Your task to perform on an android device: turn vacation reply on in the gmail app Image 0: 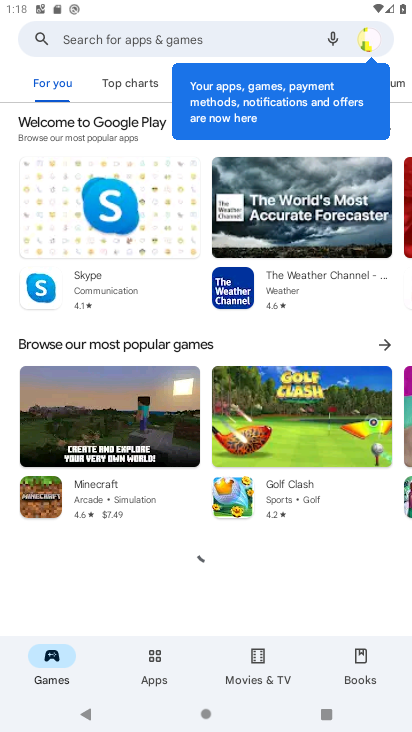
Step 0: press home button
Your task to perform on an android device: turn vacation reply on in the gmail app Image 1: 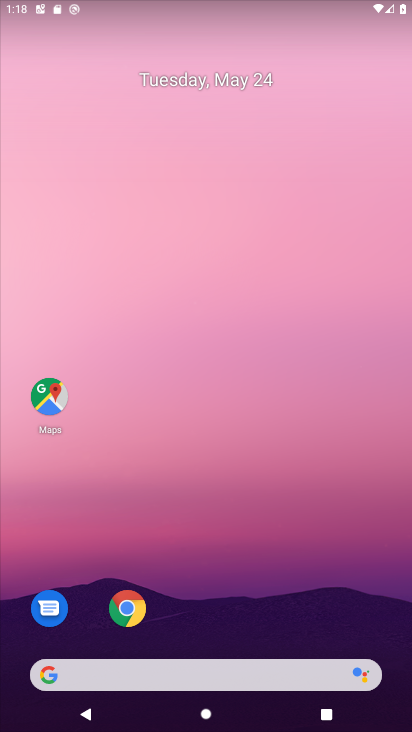
Step 1: drag from (237, 617) to (227, 153)
Your task to perform on an android device: turn vacation reply on in the gmail app Image 2: 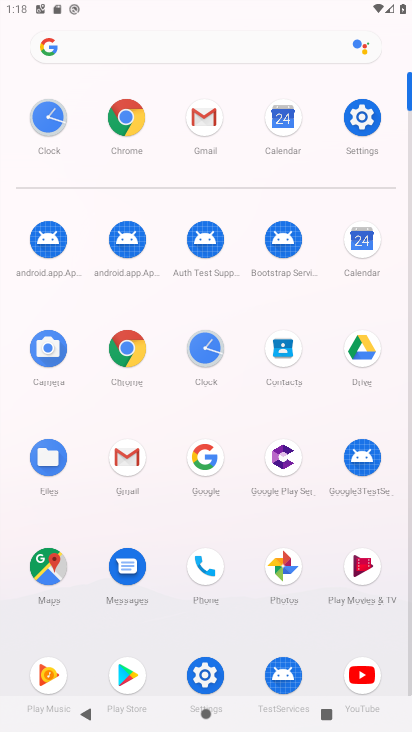
Step 2: click (209, 144)
Your task to perform on an android device: turn vacation reply on in the gmail app Image 3: 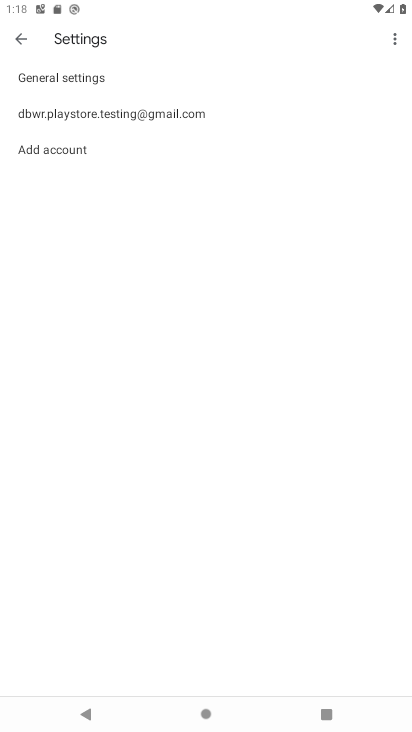
Step 3: click (36, 105)
Your task to perform on an android device: turn vacation reply on in the gmail app Image 4: 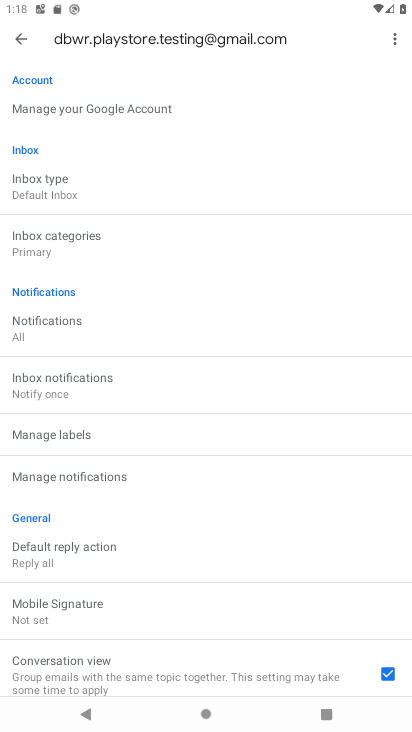
Step 4: drag from (161, 584) to (167, 233)
Your task to perform on an android device: turn vacation reply on in the gmail app Image 5: 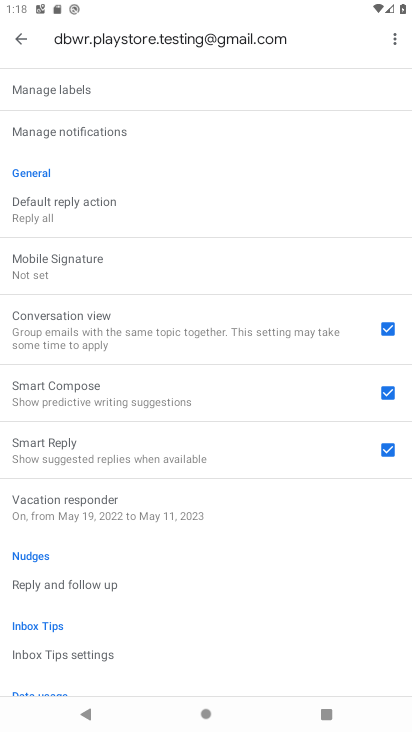
Step 5: click (223, 520)
Your task to perform on an android device: turn vacation reply on in the gmail app Image 6: 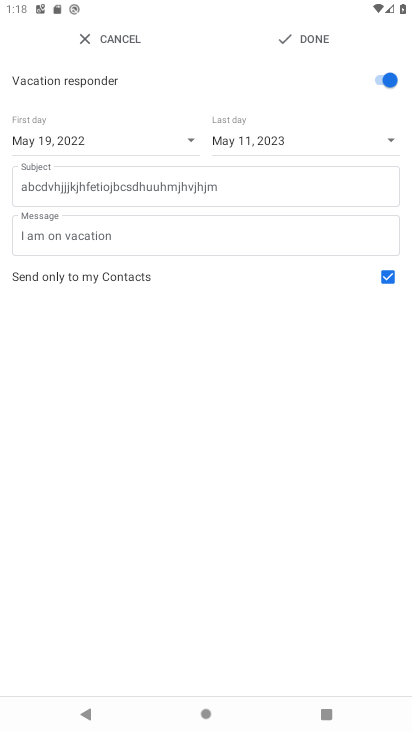
Step 6: click (296, 20)
Your task to perform on an android device: turn vacation reply on in the gmail app Image 7: 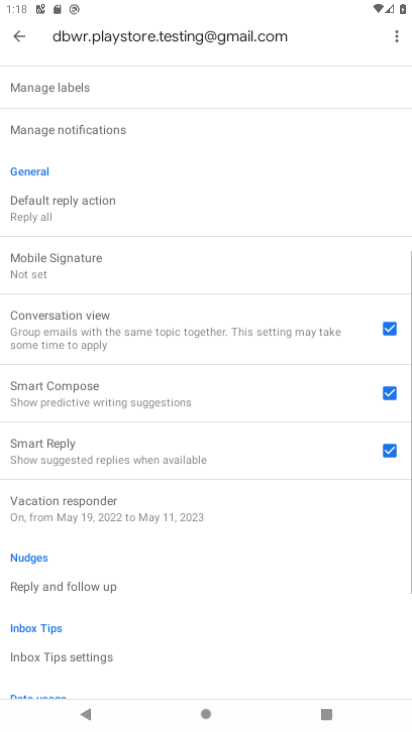
Step 7: click (296, 20)
Your task to perform on an android device: turn vacation reply on in the gmail app Image 8: 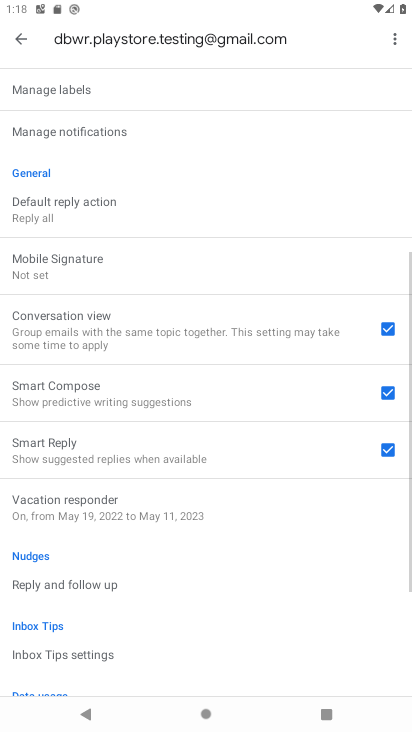
Step 8: task complete